Your task to perform on an android device: turn on the 12-hour format for clock Image 0: 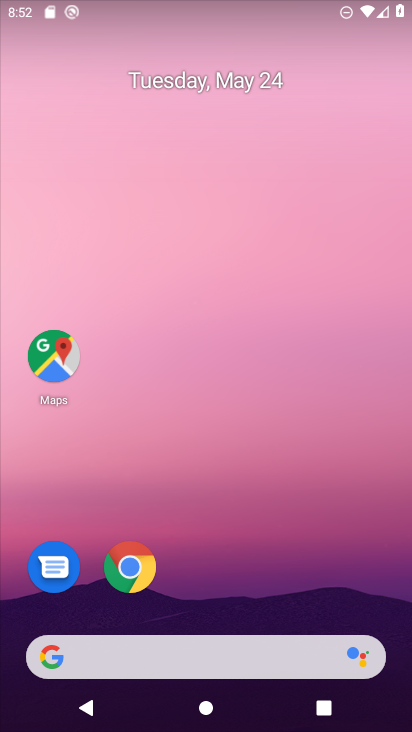
Step 0: press home button
Your task to perform on an android device: turn on the 12-hour format for clock Image 1: 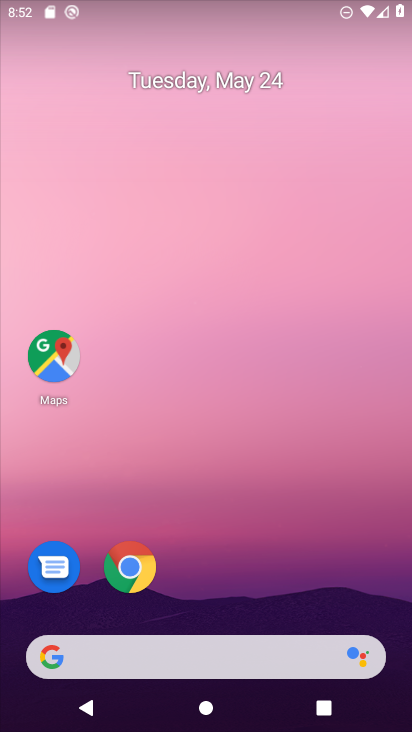
Step 1: drag from (185, 645) to (390, 66)
Your task to perform on an android device: turn on the 12-hour format for clock Image 2: 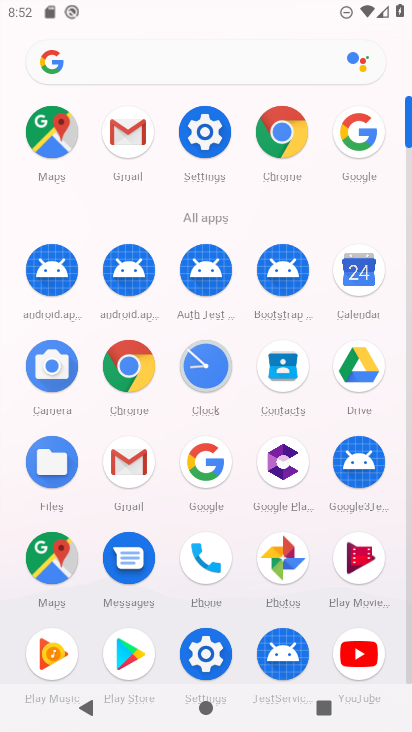
Step 2: click (207, 370)
Your task to perform on an android device: turn on the 12-hour format for clock Image 3: 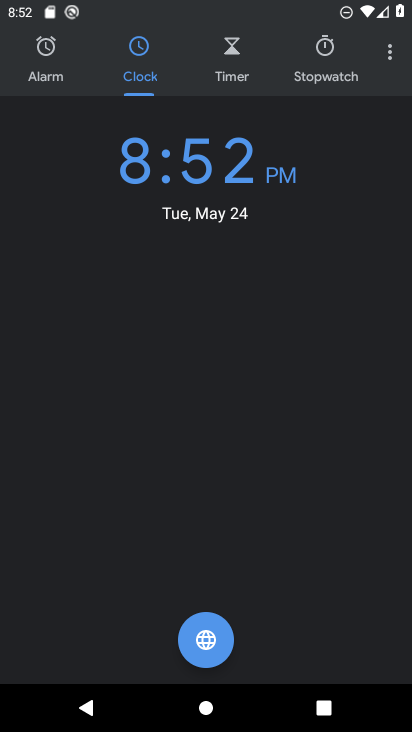
Step 3: click (390, 55)
Your task to perform on an android device: turn on the 12-hour format for clock Image 4: 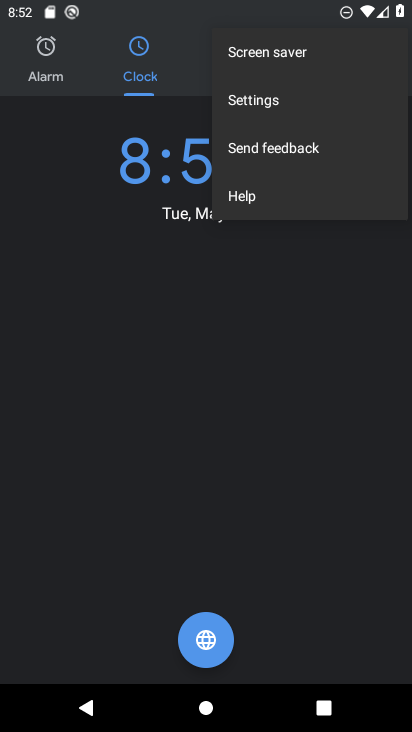
Step 4: click (257, 104)
Your task to perform on an android device: turn on the 12-hour format for clock Image 5: 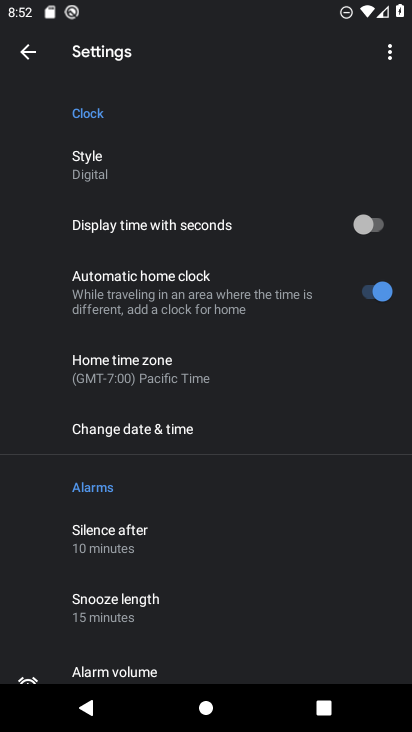
Step 5: click (142, 431)
Your task to perform on an android device: turn on the 12-hour format for clock Image 6: 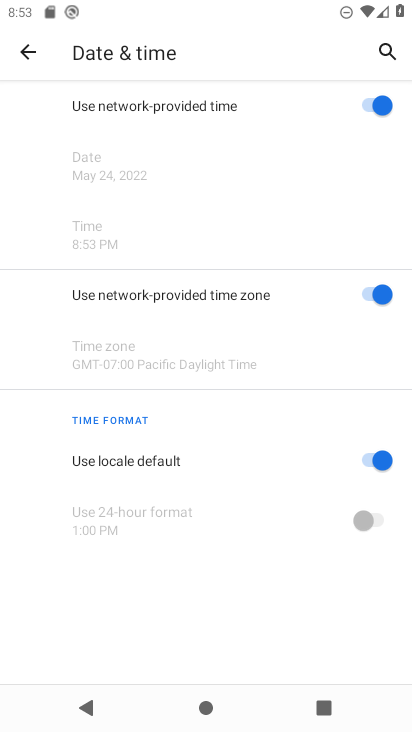
Step 6: task complete